Your task to perform on an android device: Go to eBay Image 0: 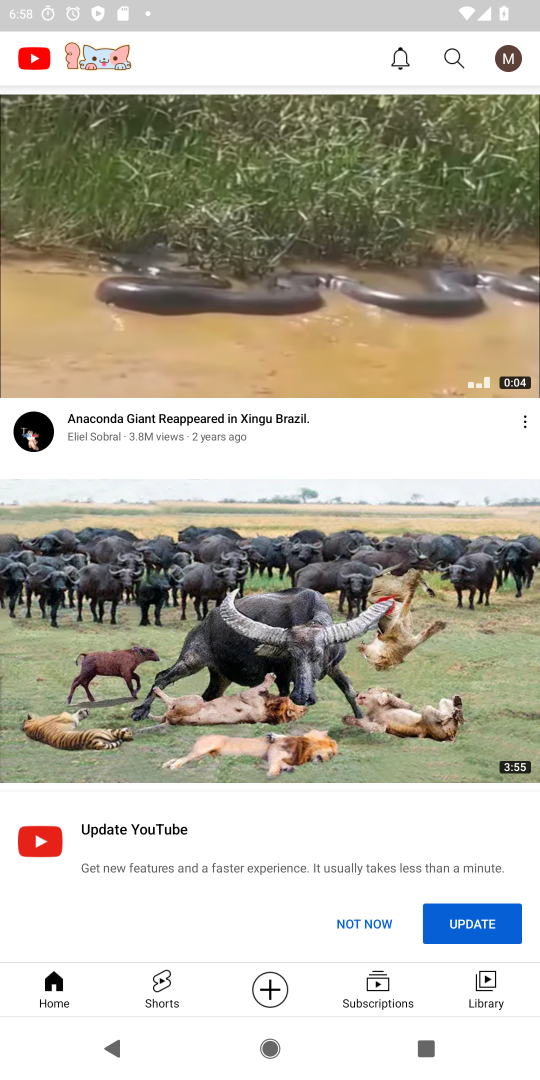
Step 0: press home button
Your task to perform on an android device: Go to eBay Image 1: 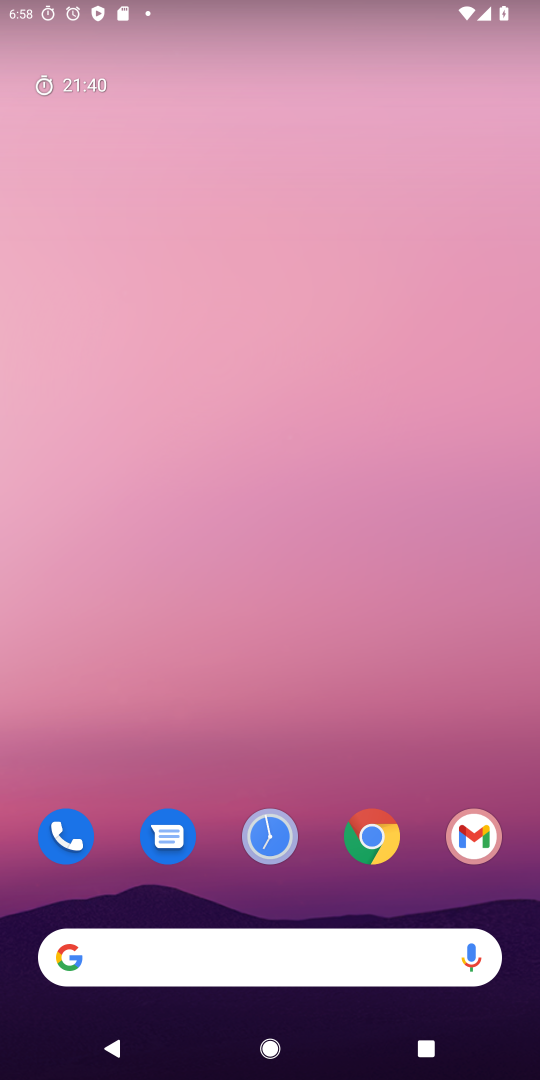
Step 1: drag from (369, 754) to (464, 0)
Your task to perform on an android device: Go to eBay Image 2: 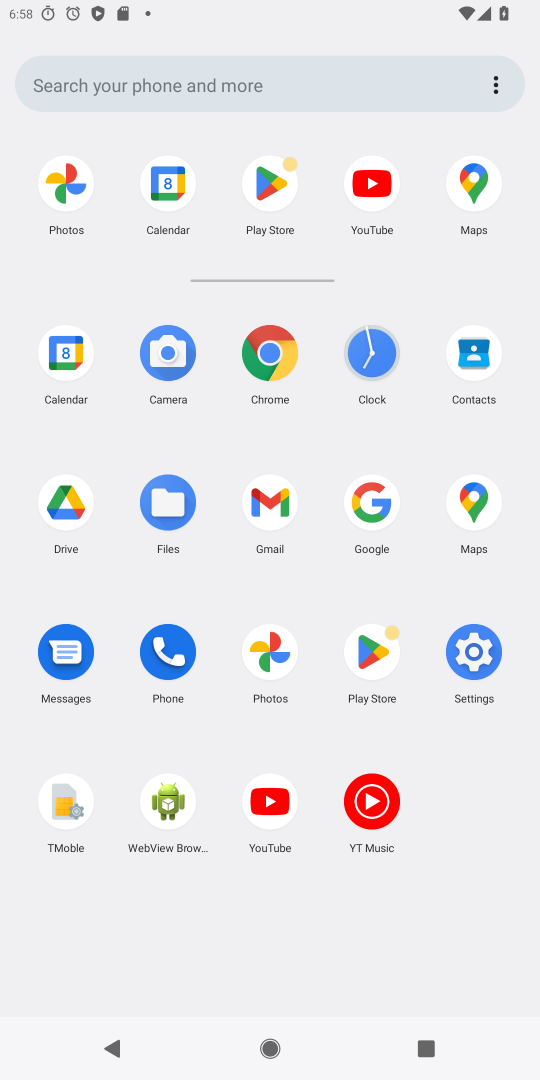
Step 2: click (283, 354)
Your task to perform on an android device: Go to eBay Image 3: 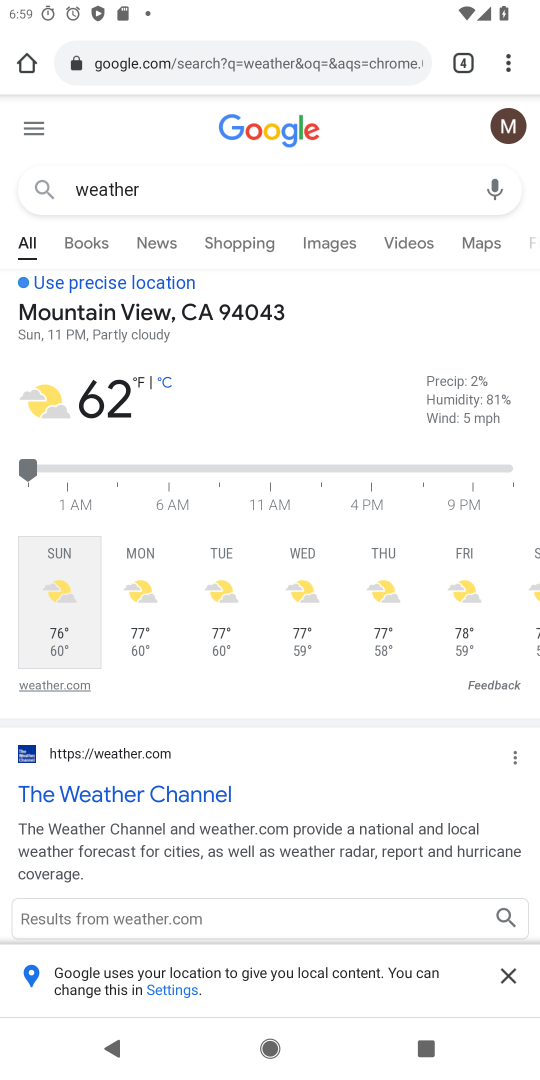
Step 3: click (473, 59)
Your task to perform on an android device: Go to eBay Image 4: 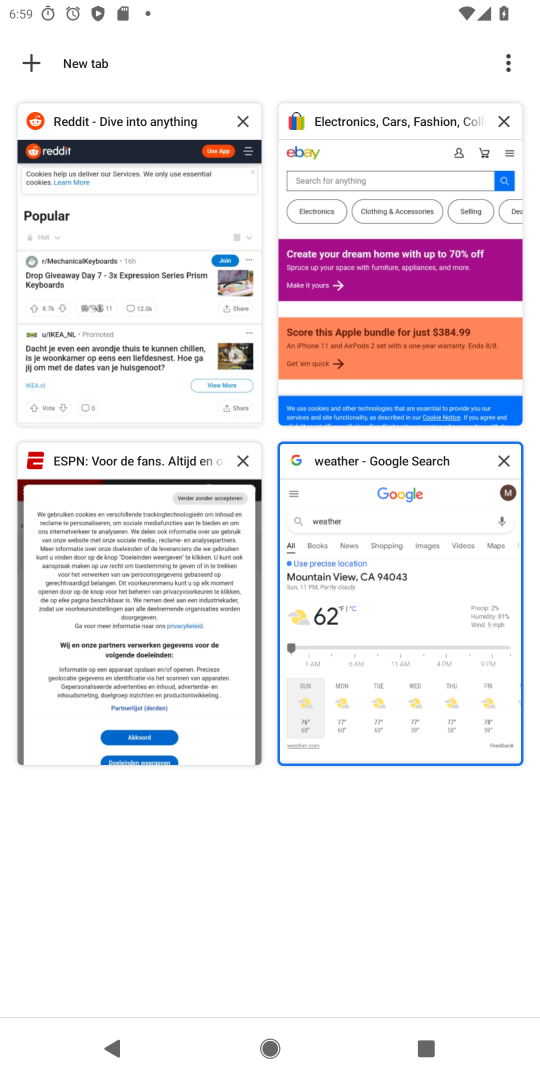
Step 4: click (420, 243)
Your task to perform on an android device: Go to eBay Image 5: 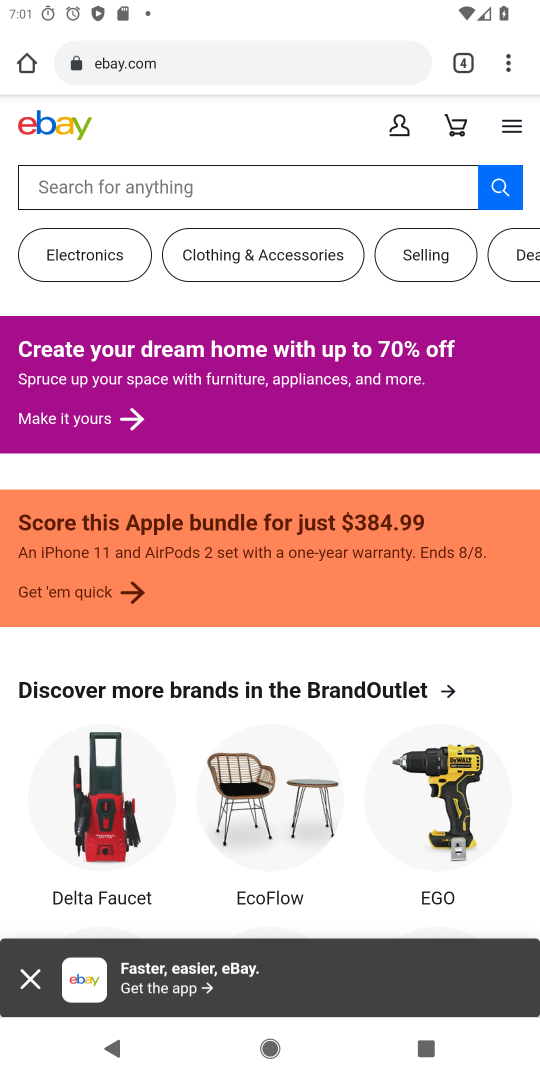
Step 5: task complete